Your task to perform on an android device: Go to display settings Image 0: 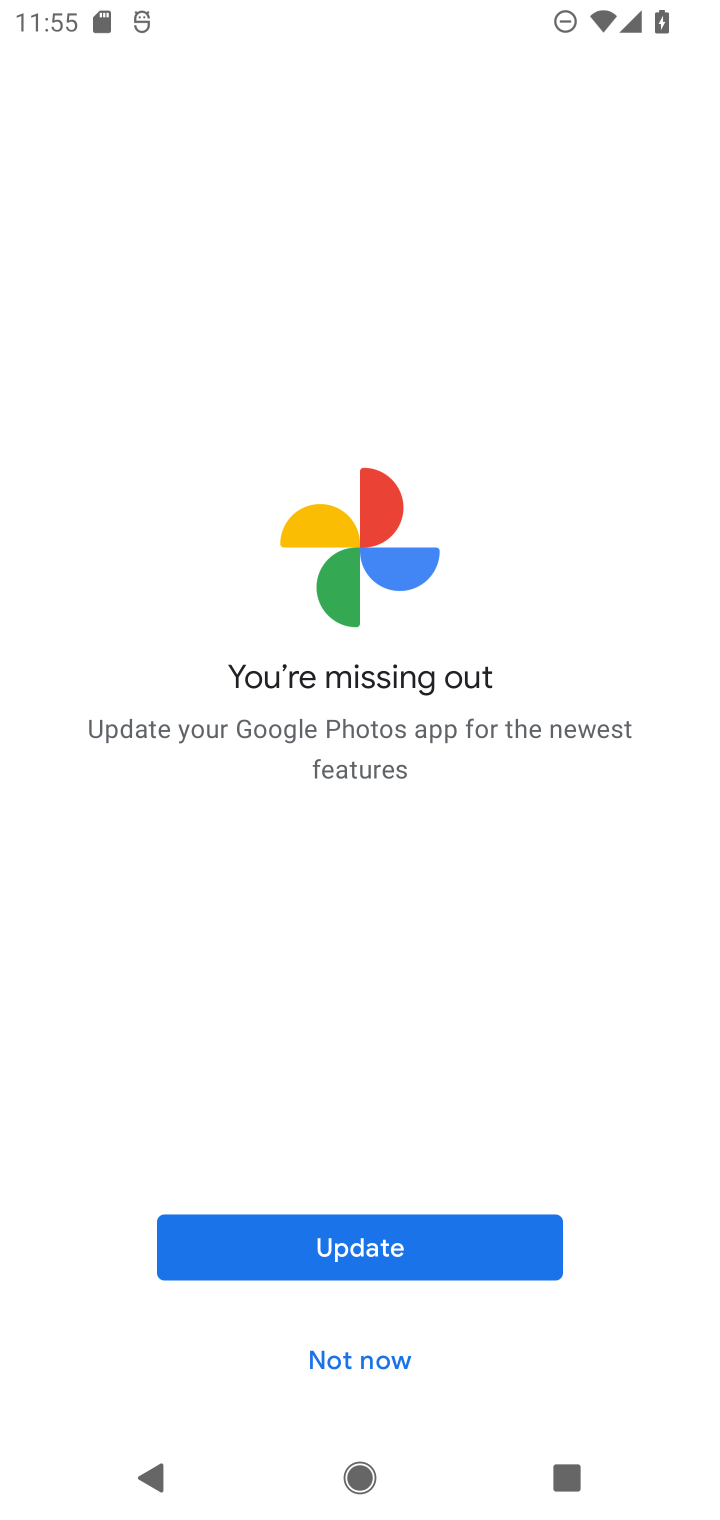
Step 0: press home button
Your task to perform on an android device: Go to display settings Image 1: 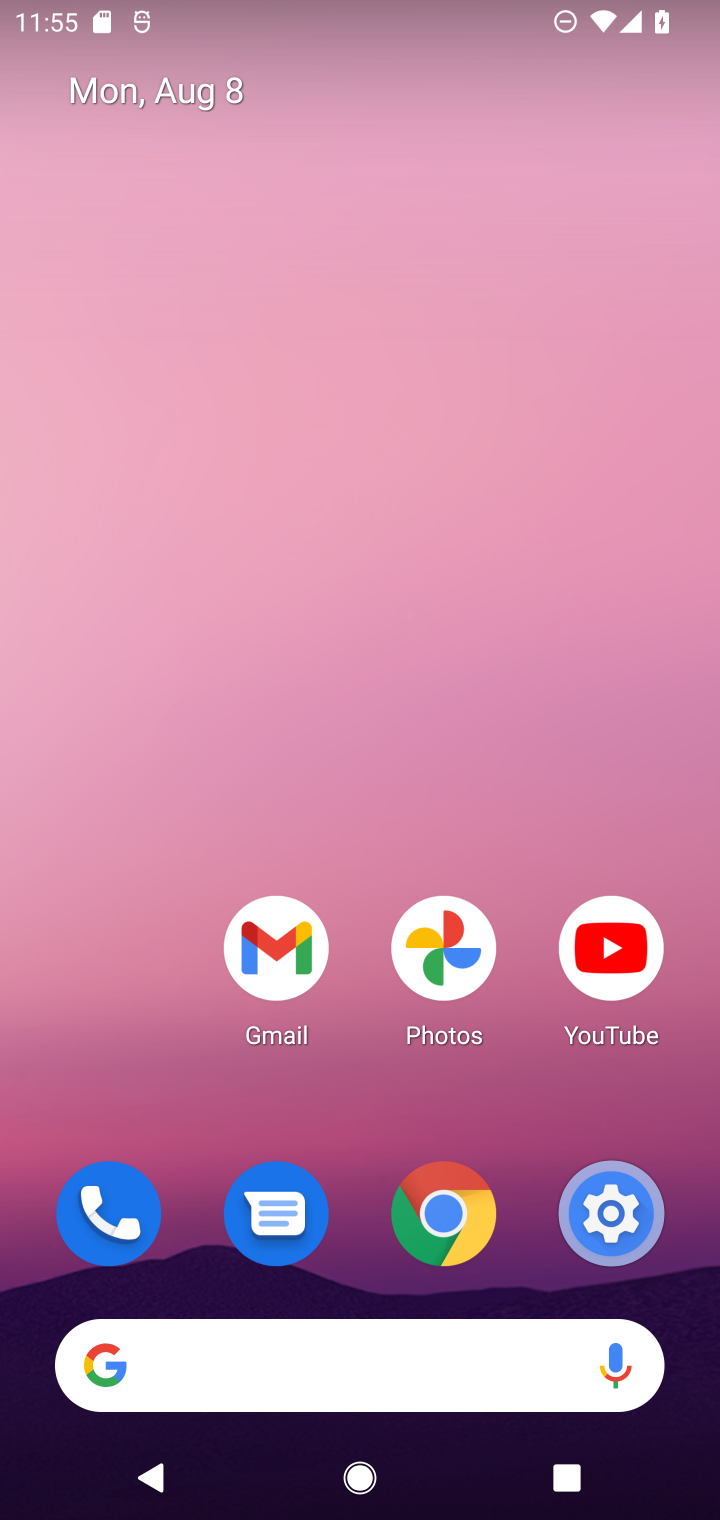
Step 1: click (602, 1197)
Your task to perform on an android device: Go to display settings Image 2: 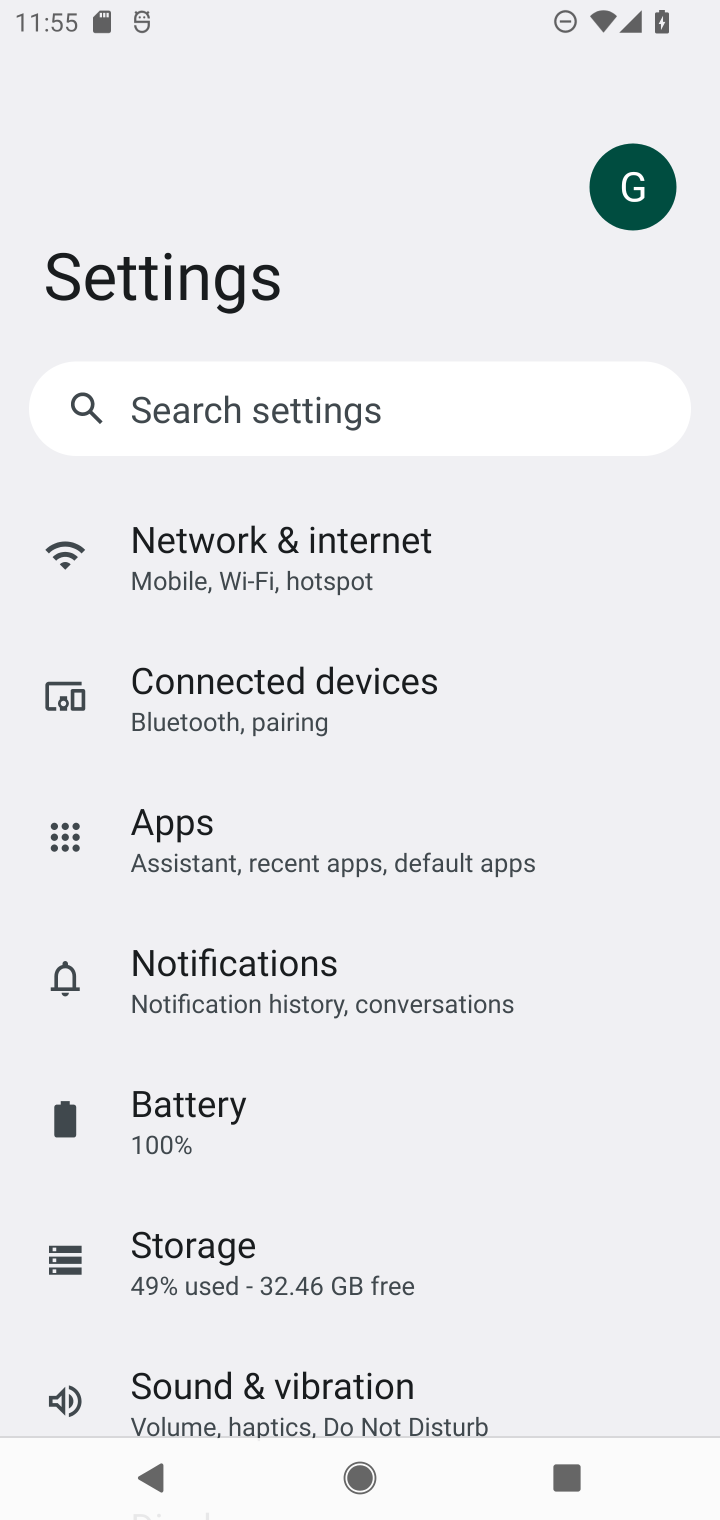
Step 2: drag from (390, 1311) to (428, 477)
Your task to perform on an android device: Go to display settings Image 3: 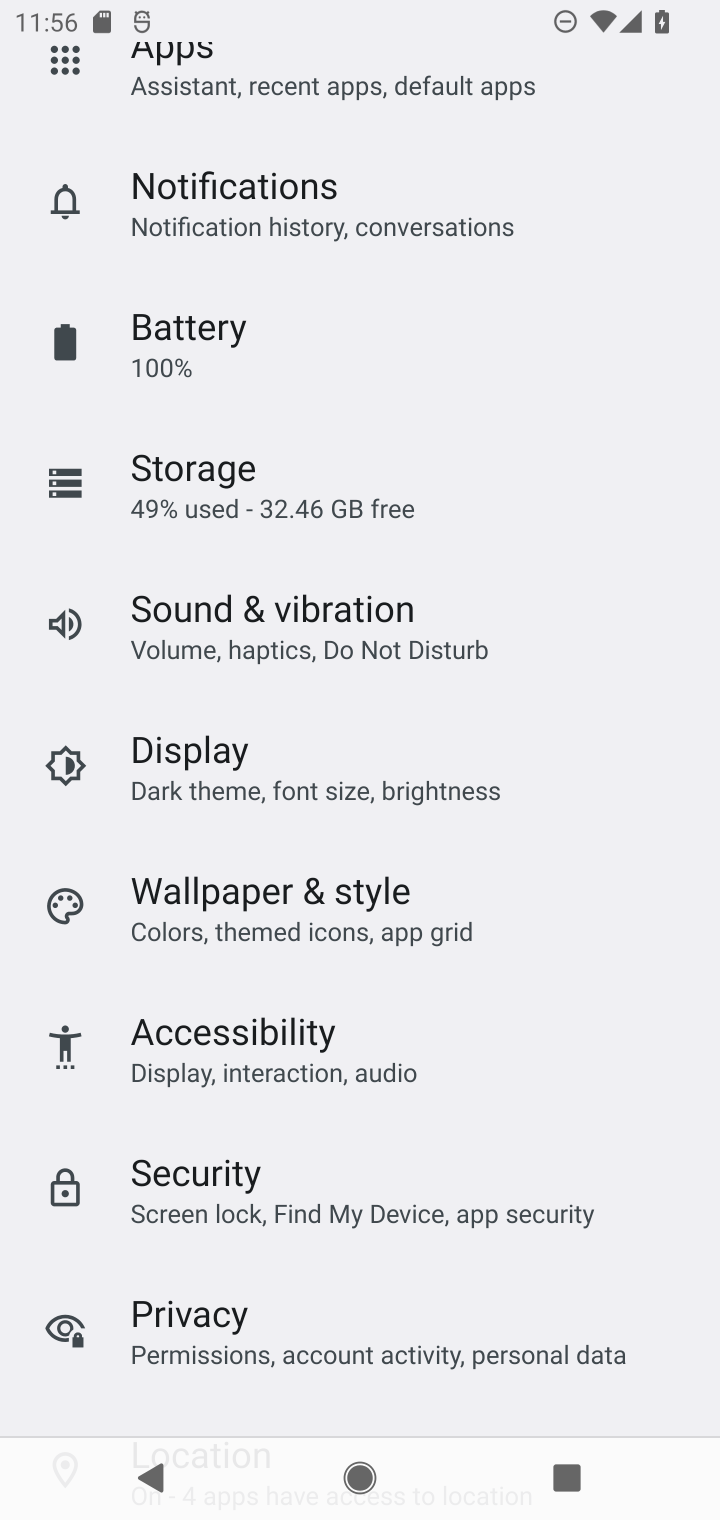
Step 3: click (263, 756)
Your task to perform on an android device: Go to display settings Image 4: 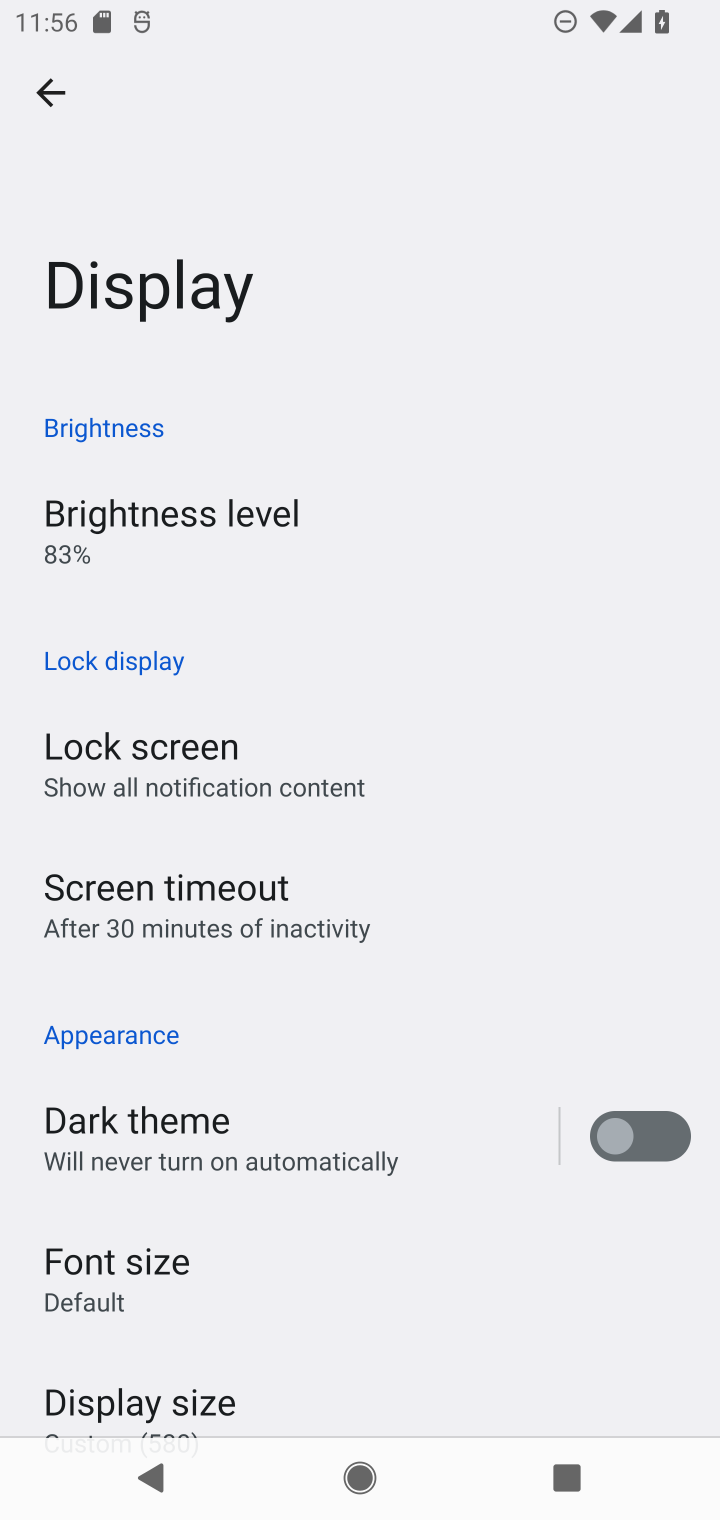
Step 4: task complete